Your task to perform on an android device: turn off location history Image 0: 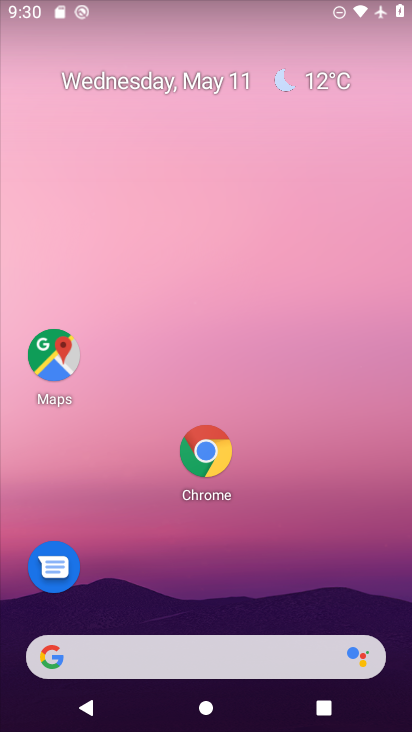
Step 0: drag from (180, 642) to (363, 130)
Your task to perform on an android device: turn off location history Image 1: 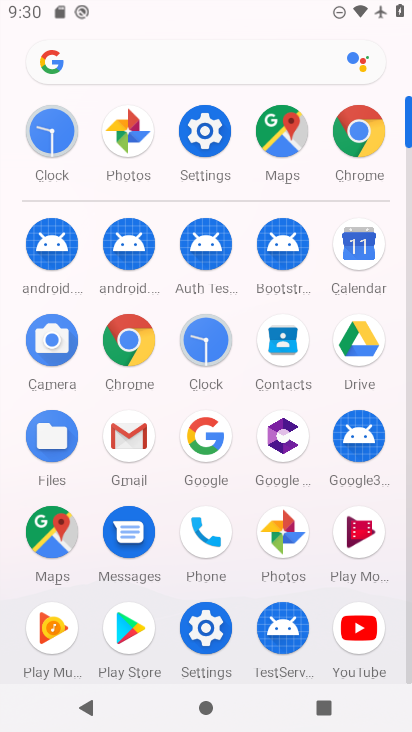
Step 1: click (288, 129)
Your task to perform on an android device: turn off location history Image 2: 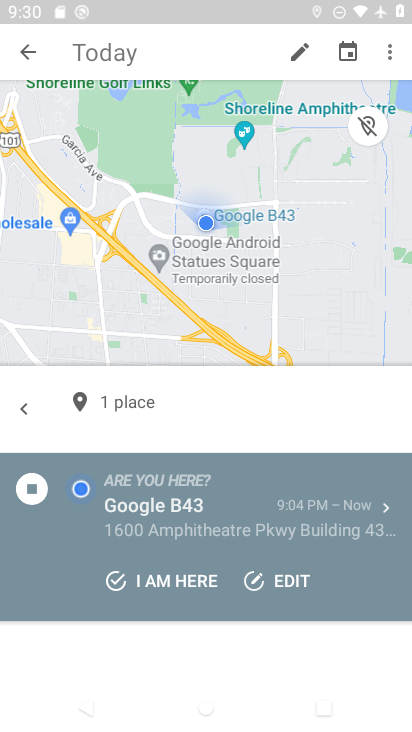
Step 2: click (393, 52)
Your task to perform on an android device: turn off location history Image 3: 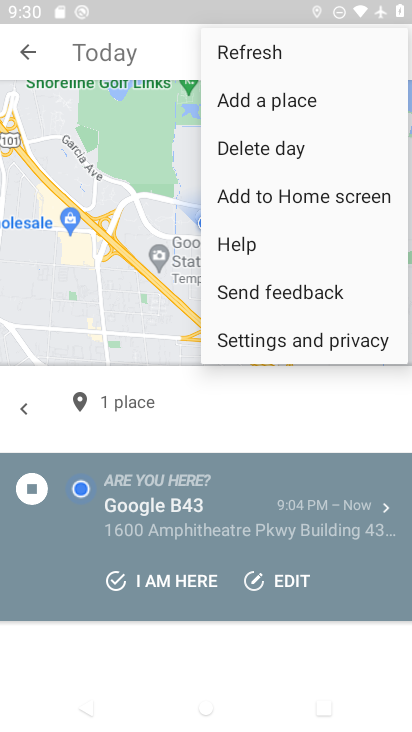
Step 3: click (265, 337)
Your task to perform on an android device: turn off location history Image 4: 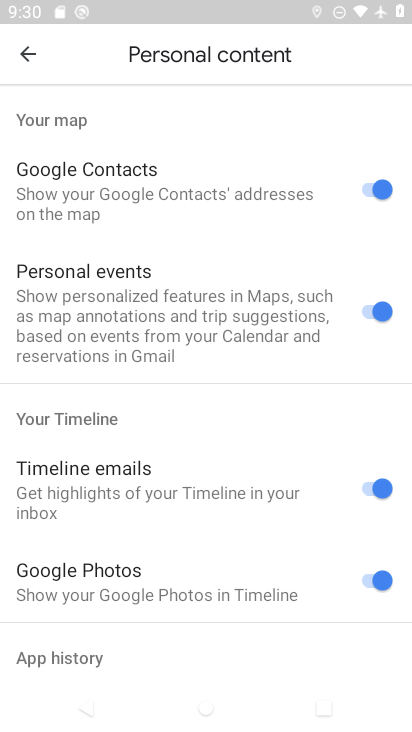
Step 4: drag from (158, 628) to (381, 71)
Your task to perform on an android device: turn off location history Image 5: 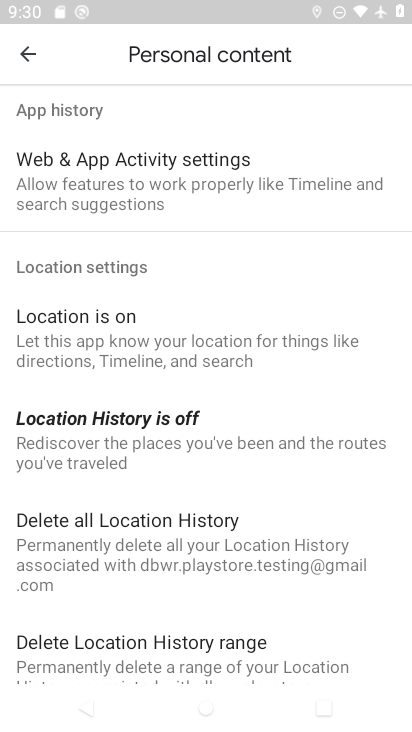
Step 5: click (182, 426)
Your task to perform on an android device: turn off location history Image 6: 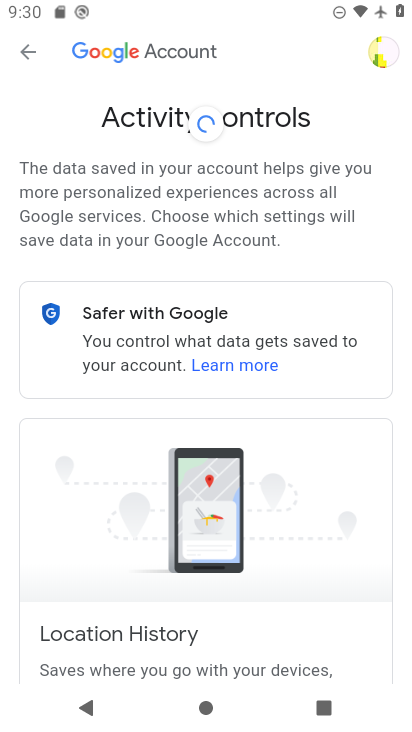
Step 6: drag from (140, 611) to (346, 111)
Your task to perform on an android device: turn off location history Image 7: 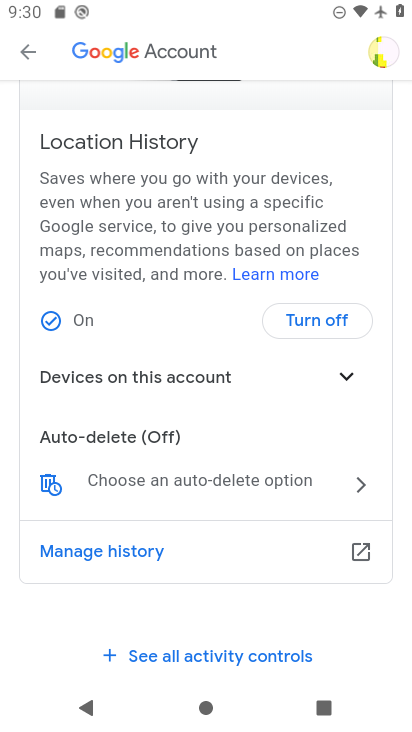
Step 7: click (325, 316)
Your task to perform on an android device: turn off location history Image 8: 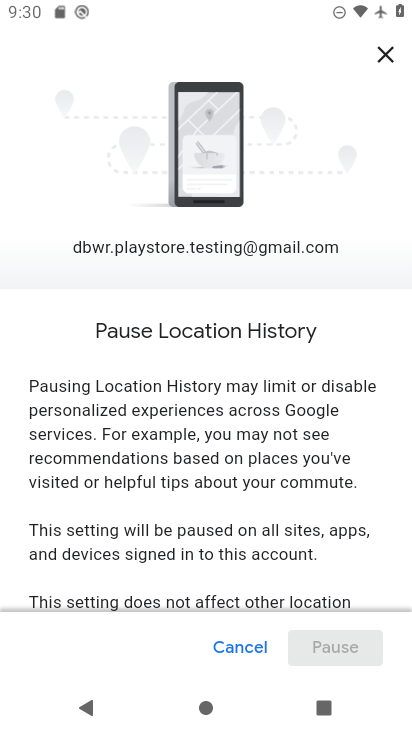
Step 8: drag from (227, 556) to (393, 46)
Your task to perform on an android device: turn off location history Image 9: 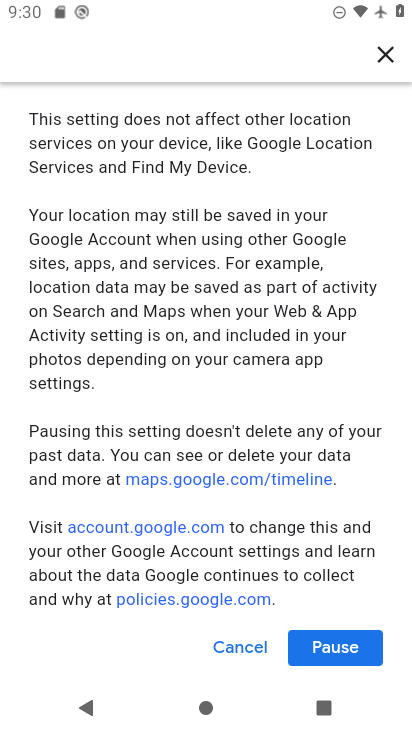
Step 9: drag from (248, 547) to (397, 113)
Your task to perform on an android device: turn off location history Image 10: 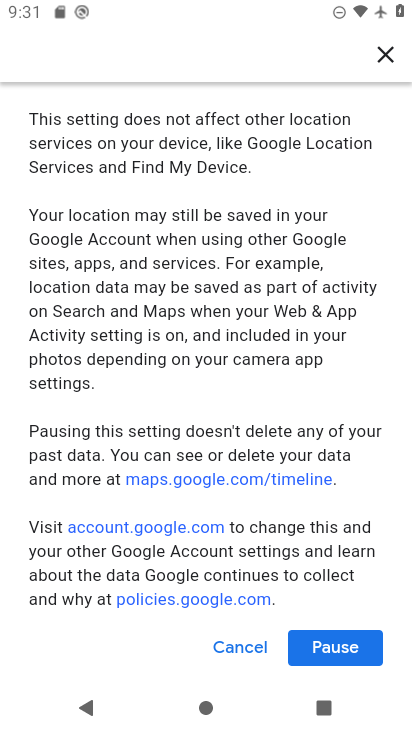
Step 10: click (324, 644)
Your task to perform on an android device: turn off location history Image 11: 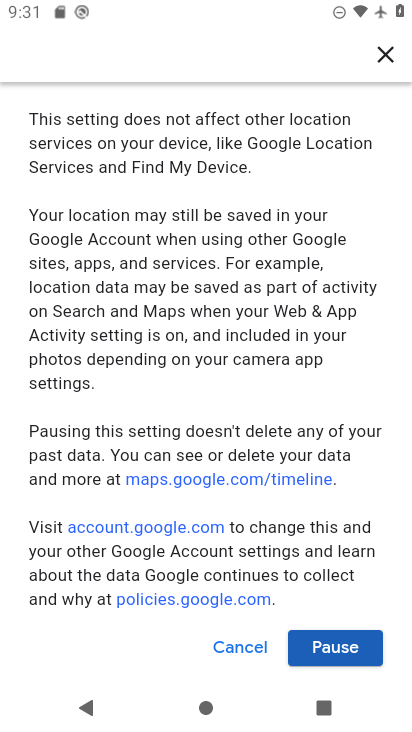
Step 11: click (330, 648)
Your task to perform on an android device: turn off location history Image 12: 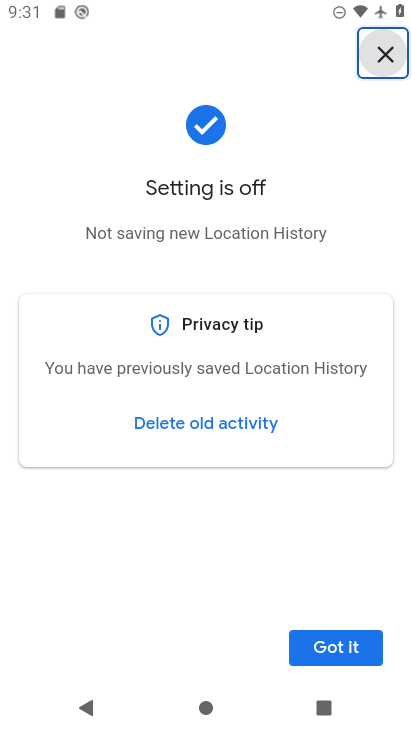
Step 12: click (330, 648)
Your task to perform on an android device: turn off location history Image 13: 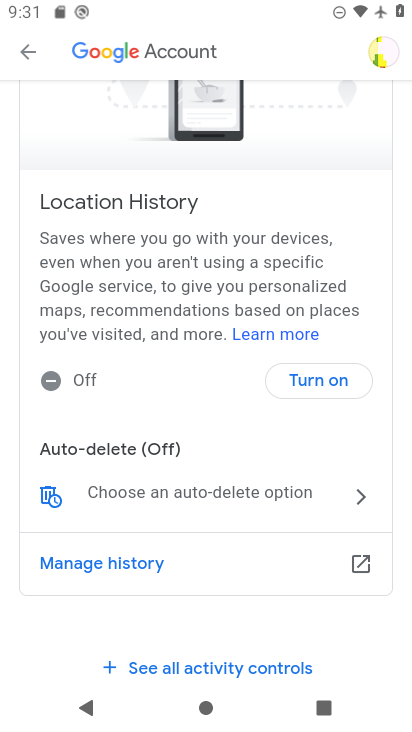
Step 13: task complete